Your task to perform on an android device: Open calendar and show me the first week of next month Image 0: 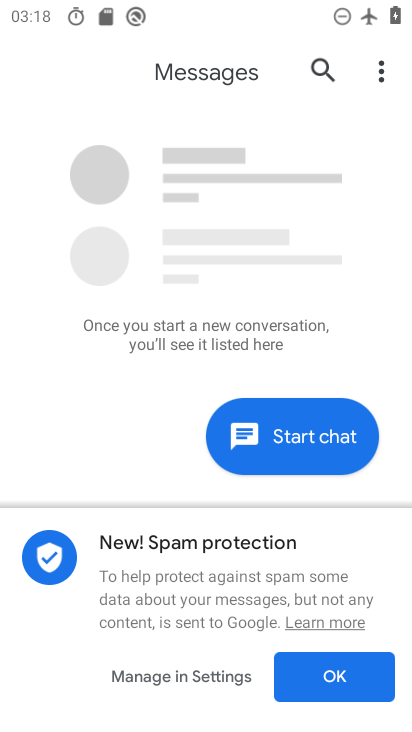
Step 0: press home button
Your task to perform on an android device: Open calendar and show me the first week of next month Image 1: 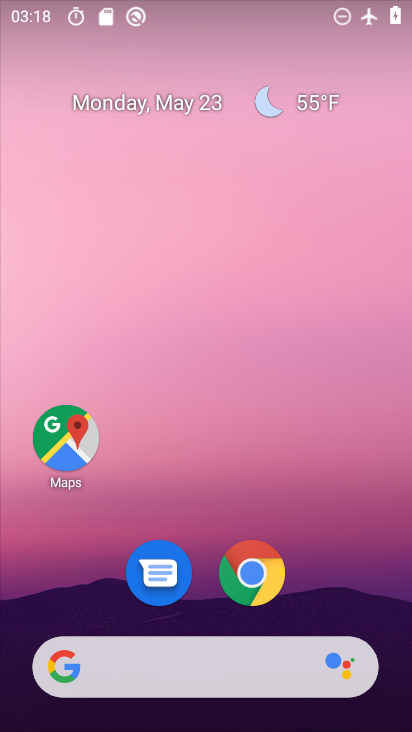
Step 1: click (196, 95)
Your task to perform on an android device: Open calendar and show me the first week of next month Image 2: 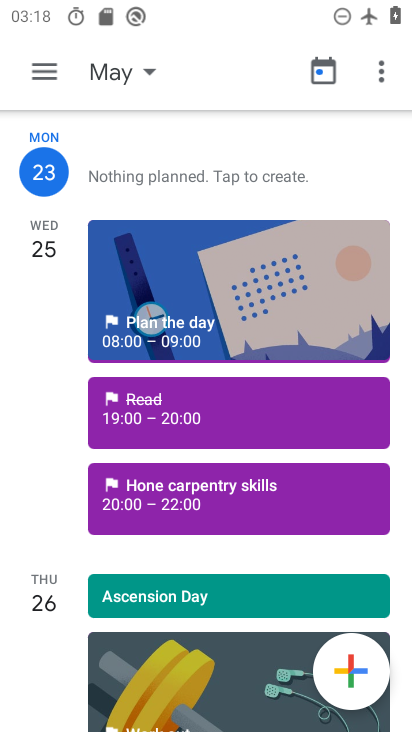
Step 2: click (38, 68)
Your task to perform on an android device: Open calendar and show me the first week of next month Image 3: 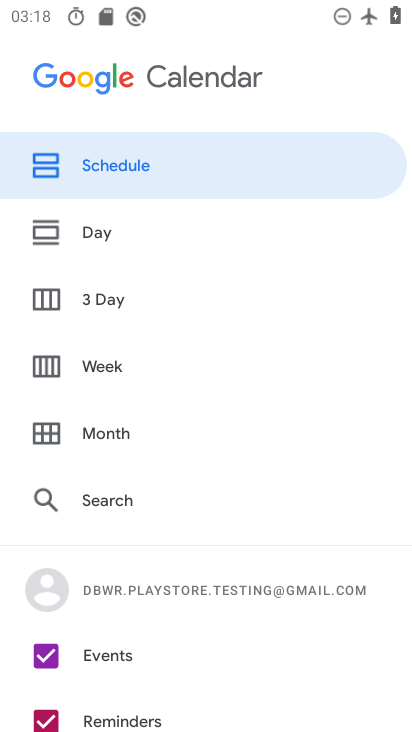
Step 3: click (103, 359)
Your task to perform on an android device: Open calendar and show me the first week of next month Image 4: 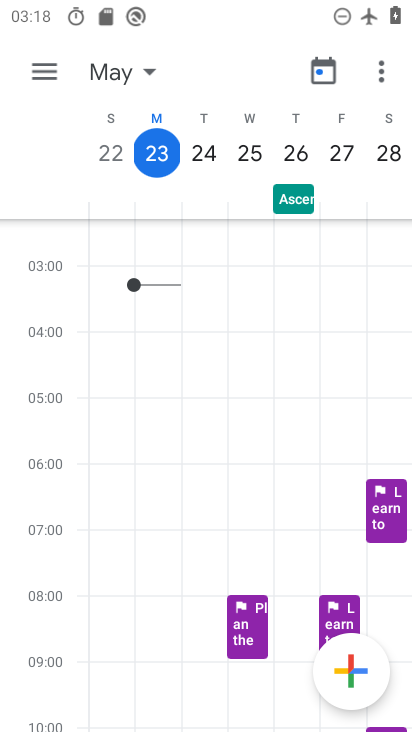
Step 4: click (147, 70)
Your task to perform on an android device: Open calendar and show me the first week of next month Image 5: 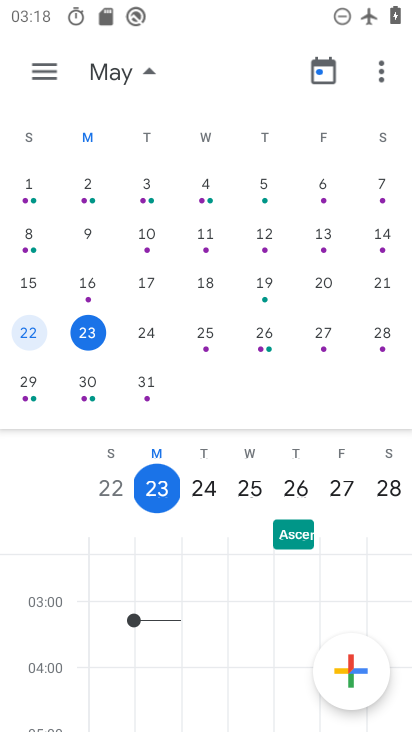
Step 5: task complete